Your task to perform on an android device: Open Chrome and go to settings Image 0: 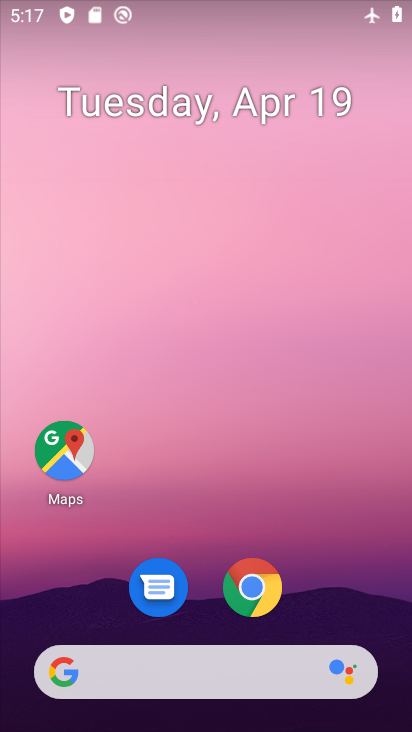
Step 0: click (254, 588)
Your task to perform on an android device: Open Chrome and go to settings Image 1: 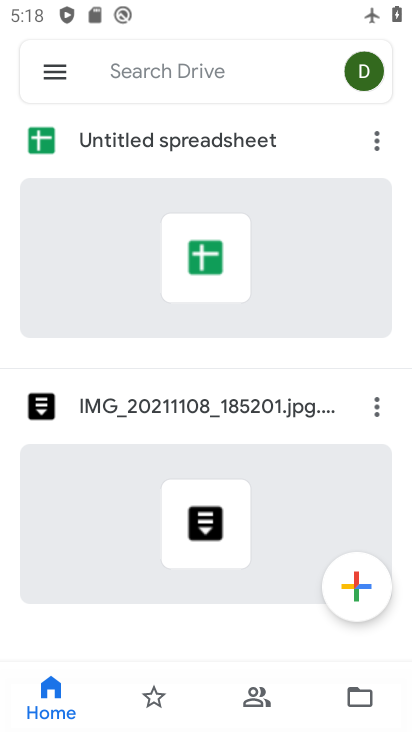
Step 1: press home button
Your task to perform on an android device: Open Chrome and go to settings Image 2: 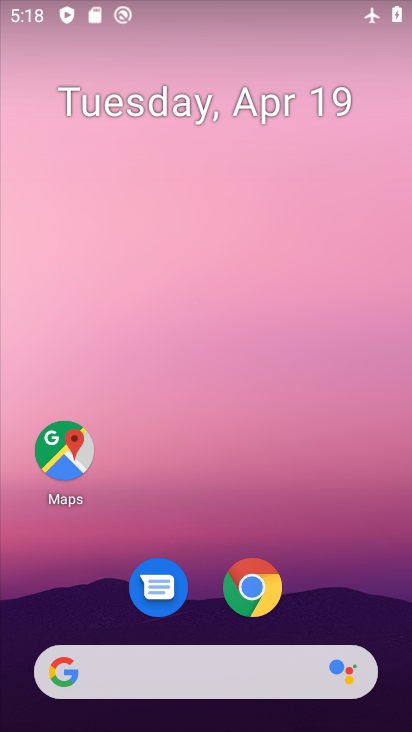
Step 2: click (252, 604)
Your task to perform on an android device: Open Chrome and go to settings Image 3: 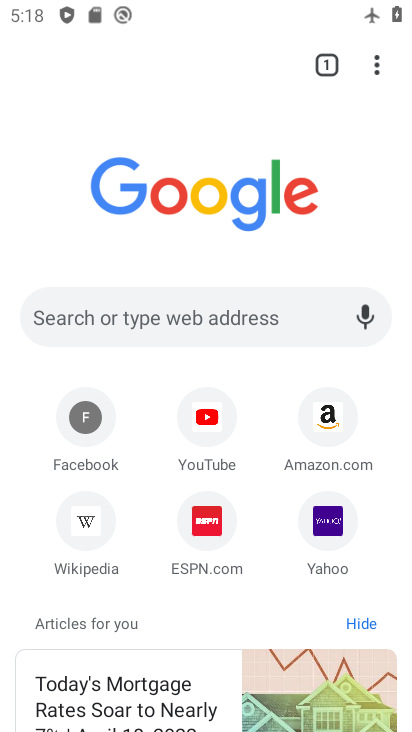
Step 3: click (380, 67)
Your task to perform on an android device: Open Chrome and go to settings Image 4: 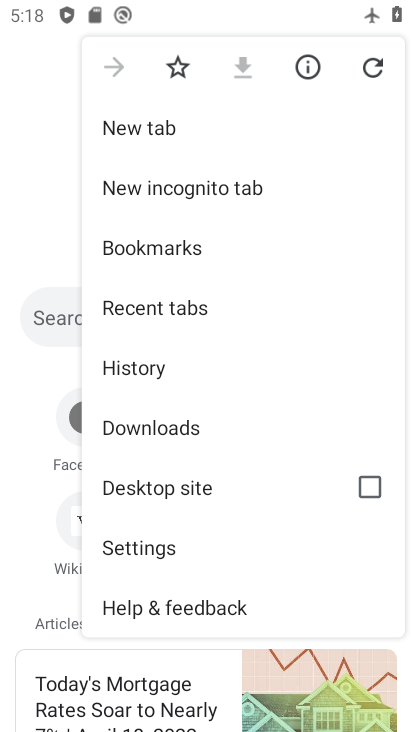
Step 4: click (137, 538)
Your task to perform on an android device: Open Chrome and go to settings Image 5: 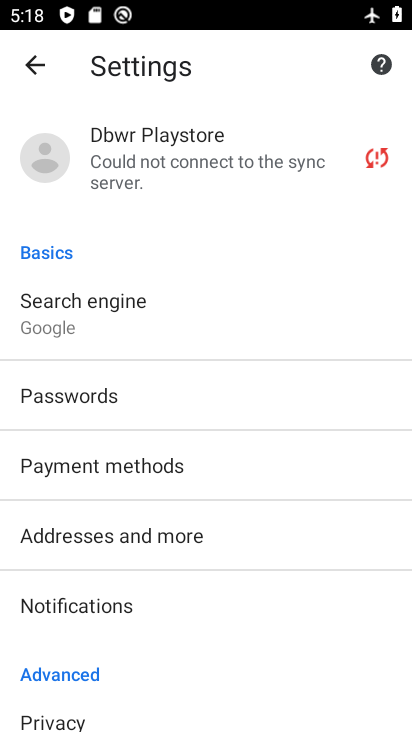
Step 5: task complete